Your task to perform on an android device: toggle priority inbox in the gmail app Image 0: 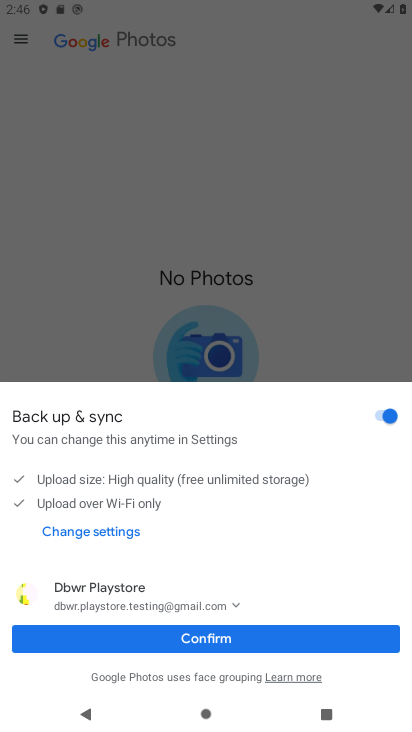
Step 0: press home button
Your task to perform on an android device: toggle priority inbox in the gmail app Image 1: 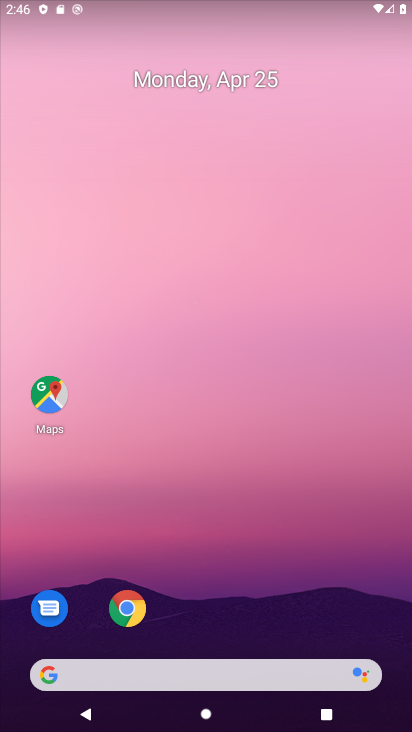
Step 1: drag from (213, 669) to (200, 73)
Your task to perform on an android device: toggle priority inbox in the gmail app Image 2: 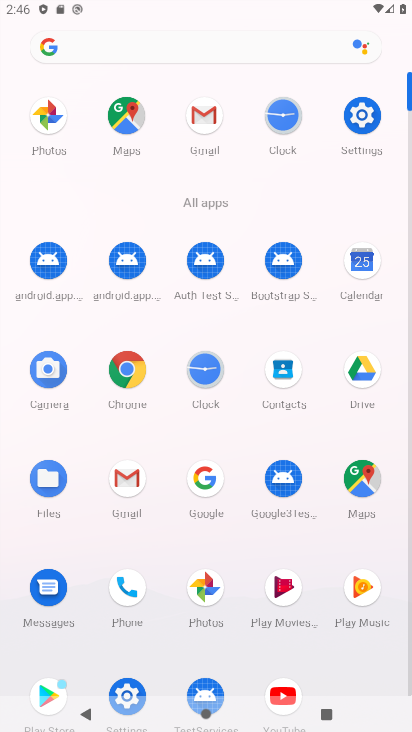
Step 2: click (206, 122)
Your task to perform on an android device: toggle priority inbox in the gmail app Image 3: 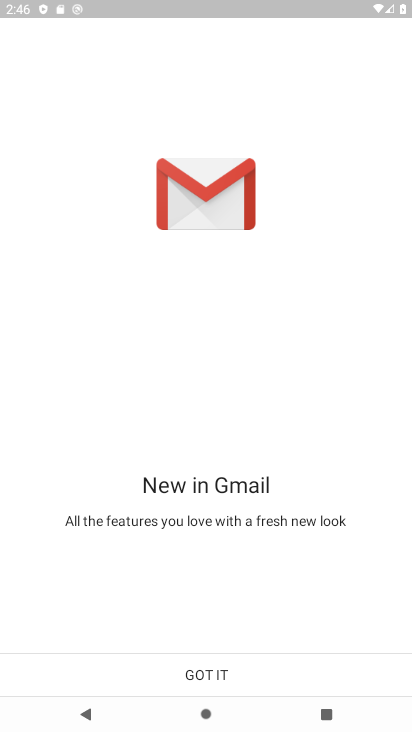
Step 3: click (199, 686)
Your task to perform on an android device: toggle priority inbox in the gmail app Image 4: 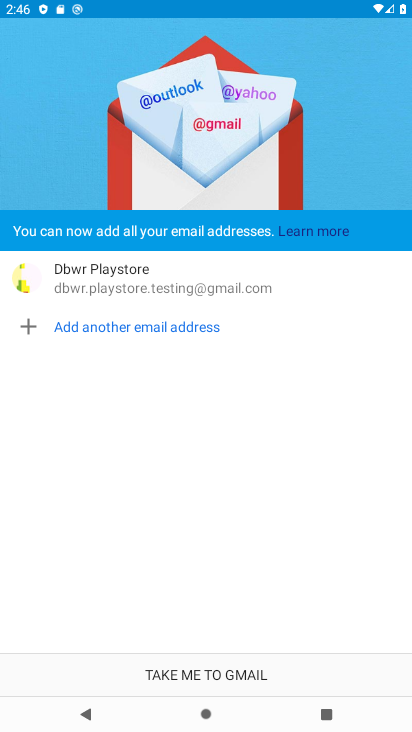
Step 4: click (199, 686)
Your task to perform on an android device: toggle priority inbox in the gmail app Image 5: 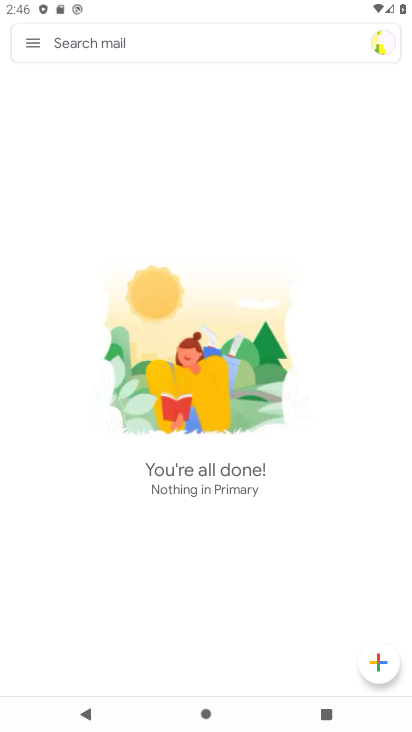
Step 5: click (31, 44)
Your task to perform on an android device: toggle priority inbox in the gmail app Image 6: 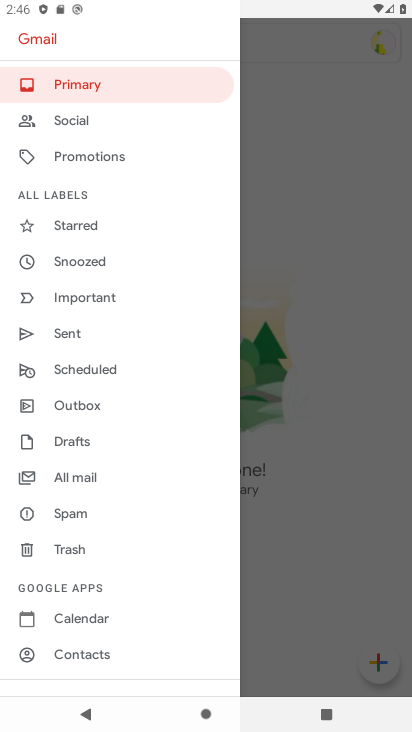
Step 6: drag from (93, 593) to (88, 243)
Your task to perform on an android device: toggle priority inbox in the gmail app Image 7: 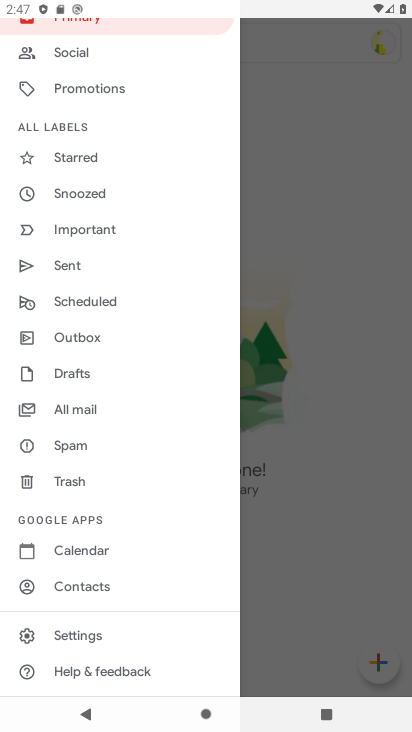
Step 7: click (59, 646)
Your task to perform on an android device: toggle priority inbox in the gmail app Image 8: 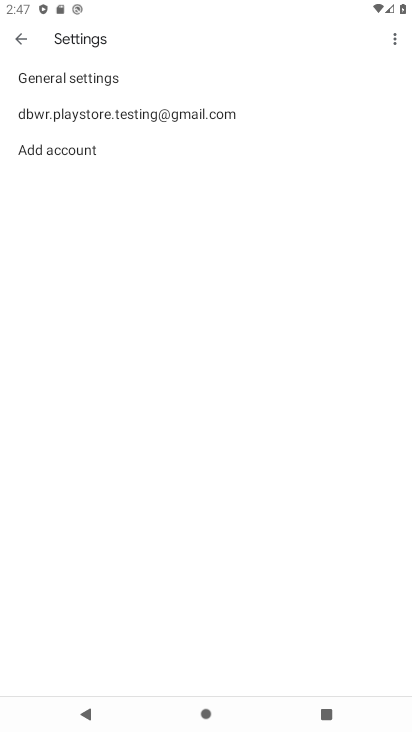
Step 8: click (106, 117)
Your task to perform on an android device: toggle priority inbox in the gmail app Image 9: 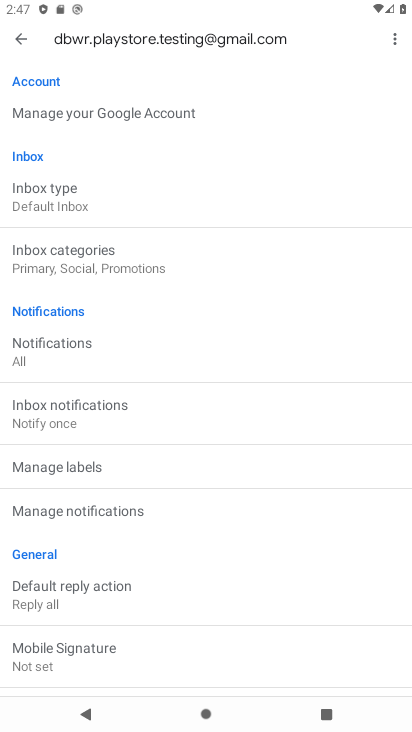
Step 9: click (82, 206)
Your task to perform on an android device: toggle priority inbox in the gmail app Image 10: 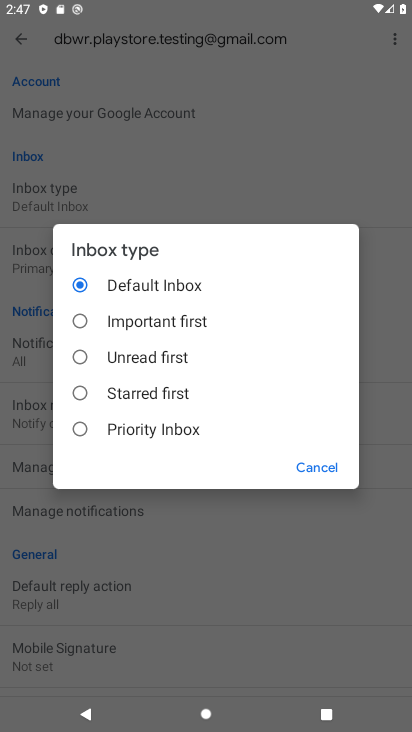
Step 10: click (145, 439)
Your task to perform on an android device: toggle priority inbox in the gmail app Image 11: 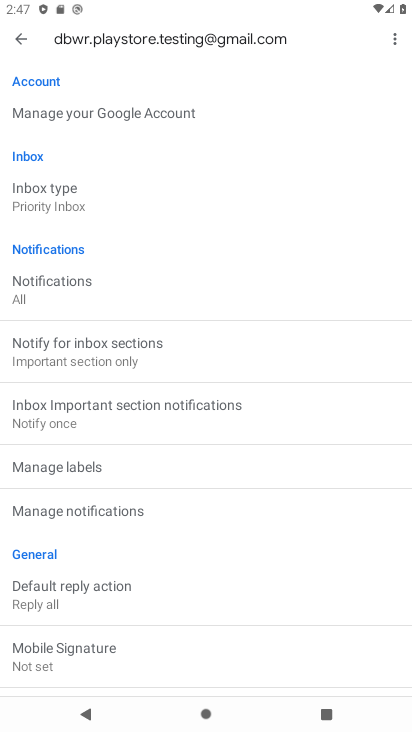
Step 11: task complete